Your task to perform on an android device: Open Google Maps Image 0: 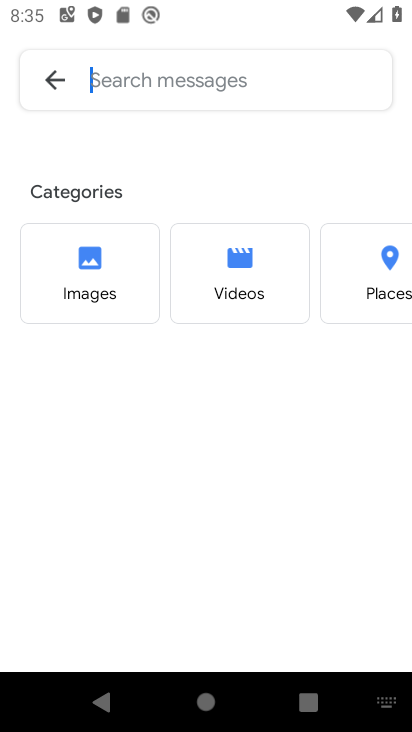
Step 0: press home button
Your task to perform on an android device: Open Google Maps Image 1: 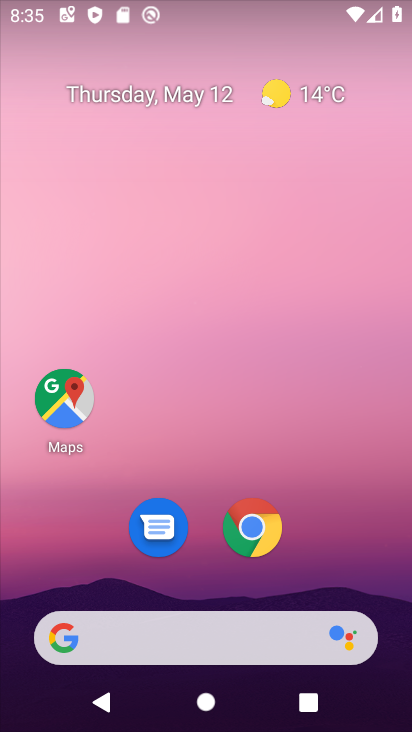
Step 1: click (77, 380)
Your task to perform on an android device: Open Google Maps Image 2: 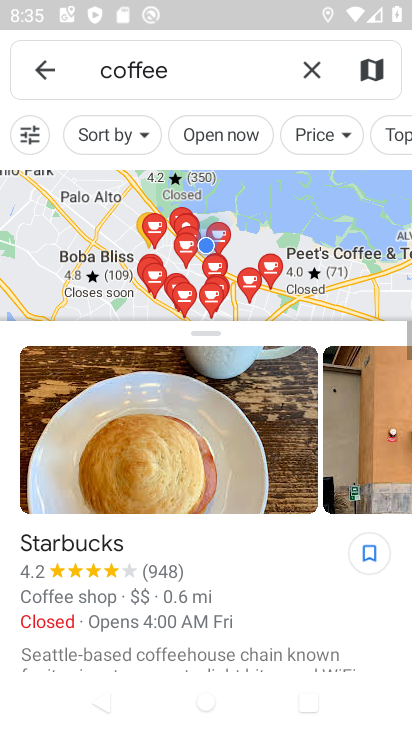
Step 2: task complete